Your task to perform on an android device: Go to Amazon Image 0: 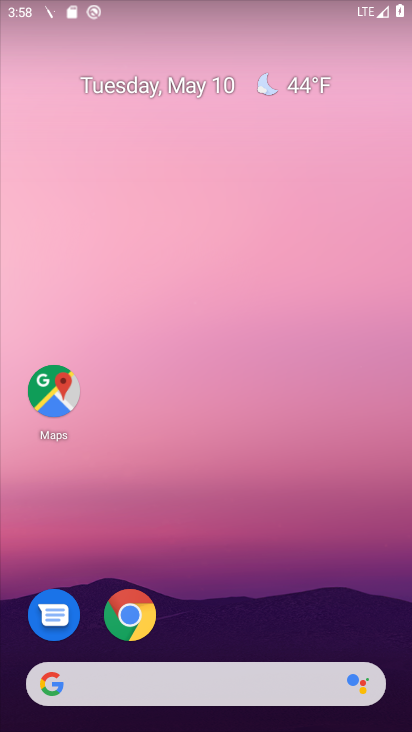
Step 0: drag from (297, 670) to (254, 120)
Your task to perform on an android device: Go to Amazon Image 1: 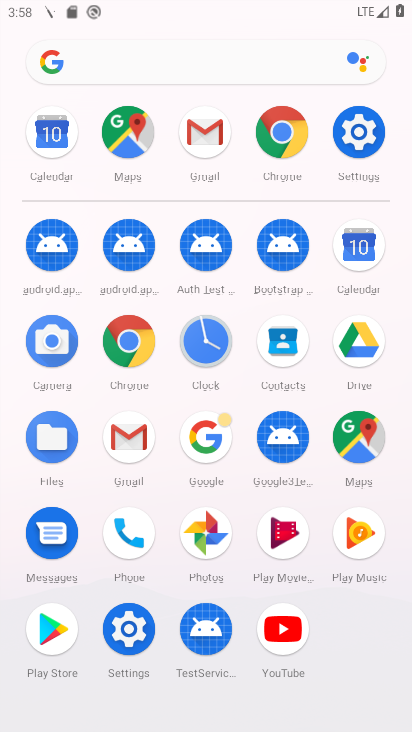
Step 1: click (119, 350)
Your task to perform on an android device: Go to Amazon Image 2: 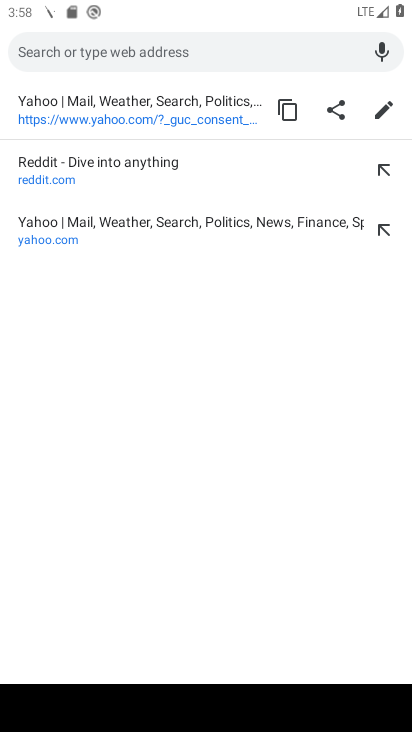
Step 2: type "amazon"
Your task to perform on an android device: Go to Amazon Image 3: 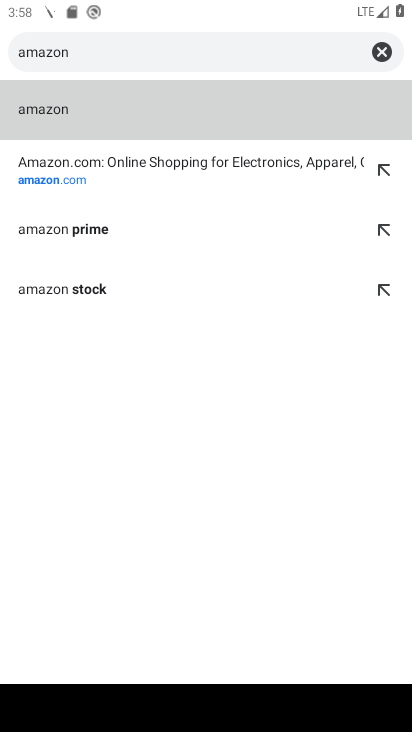
Step 3: click (125, 163)
Your task to perform on an android device: Go to Amazon Image 4: 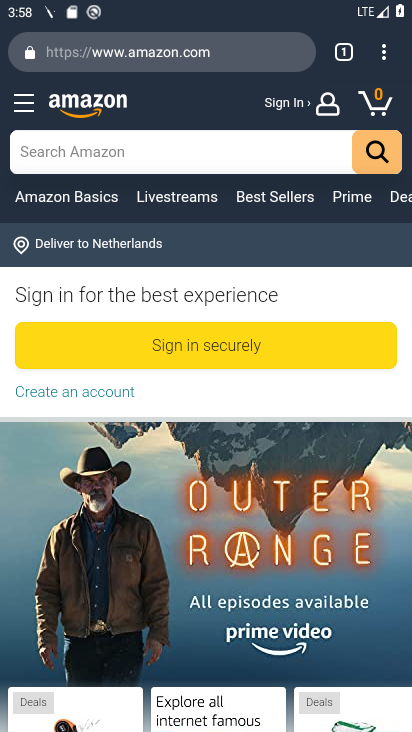
Step 4: task complete